Your task to perform on an android device: Open the stopwatch Image 0: 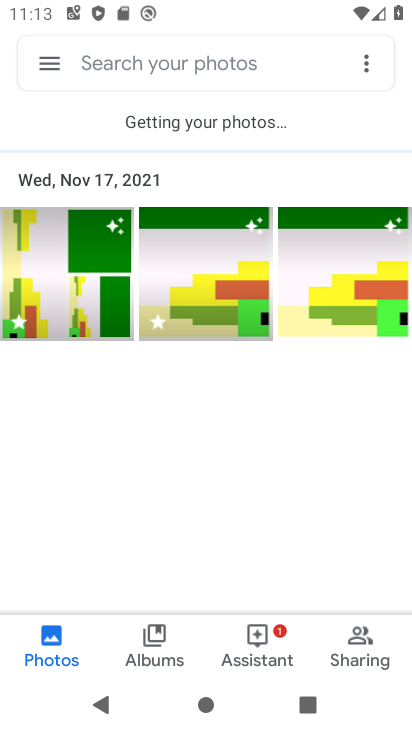
Step 0: press home button
Your task to perform on an android device: Open the stopwatch Image 1: 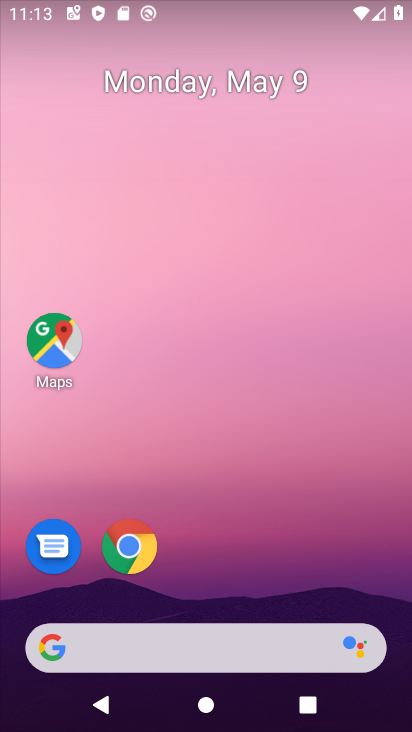
Step 1: drag from (343, 465) to (321, 0)
Your task to perform on an android device: Open the stopwatch Image 2: 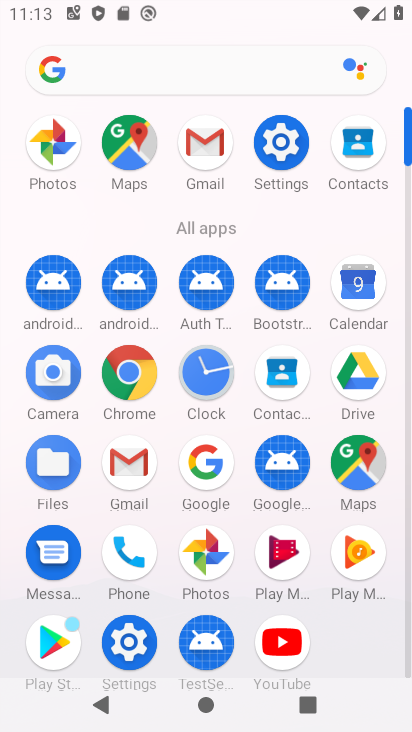
Step 2: click (199, 377)
Your task to perform on an android device: Open the stopwatch Image 3: 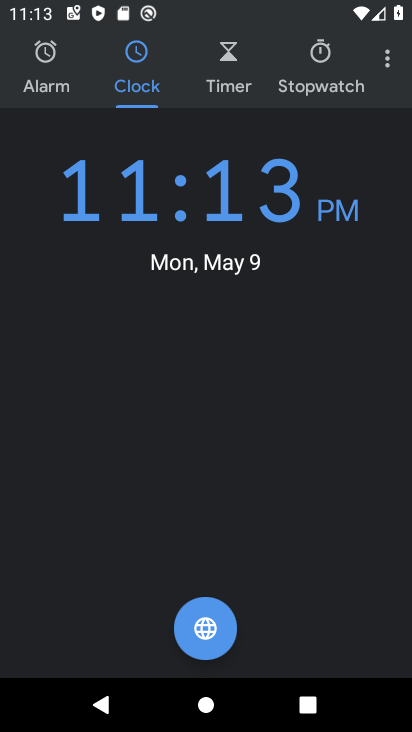
Step 3: click (322, 82)
Your task to perform on an android device: Open the stopwatch Image 4: 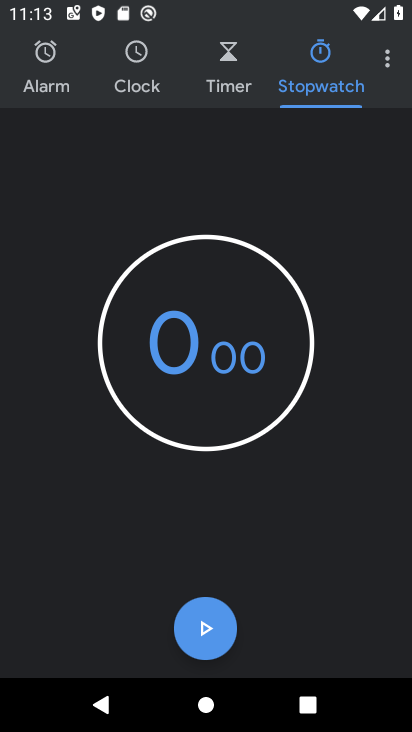
Step 4: task complete